Your task to perform on an android device: Search for corsair k70 on bestbuy, select the first entry, and add it to the cart. Image 0: 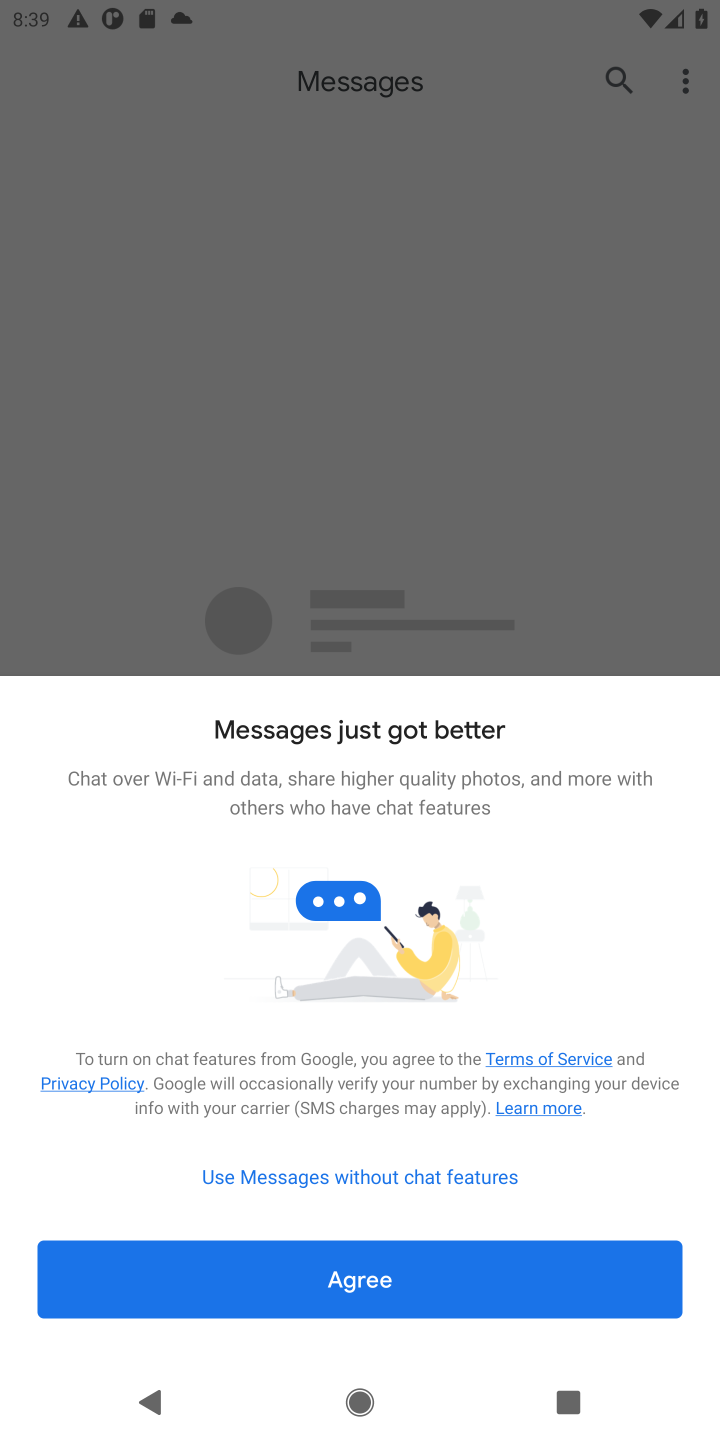
Step 0: press home button
Your task to perform on an android device: Search for corsair k70 on bestbuy, select the first entry, and add it to the cart. Image 1: 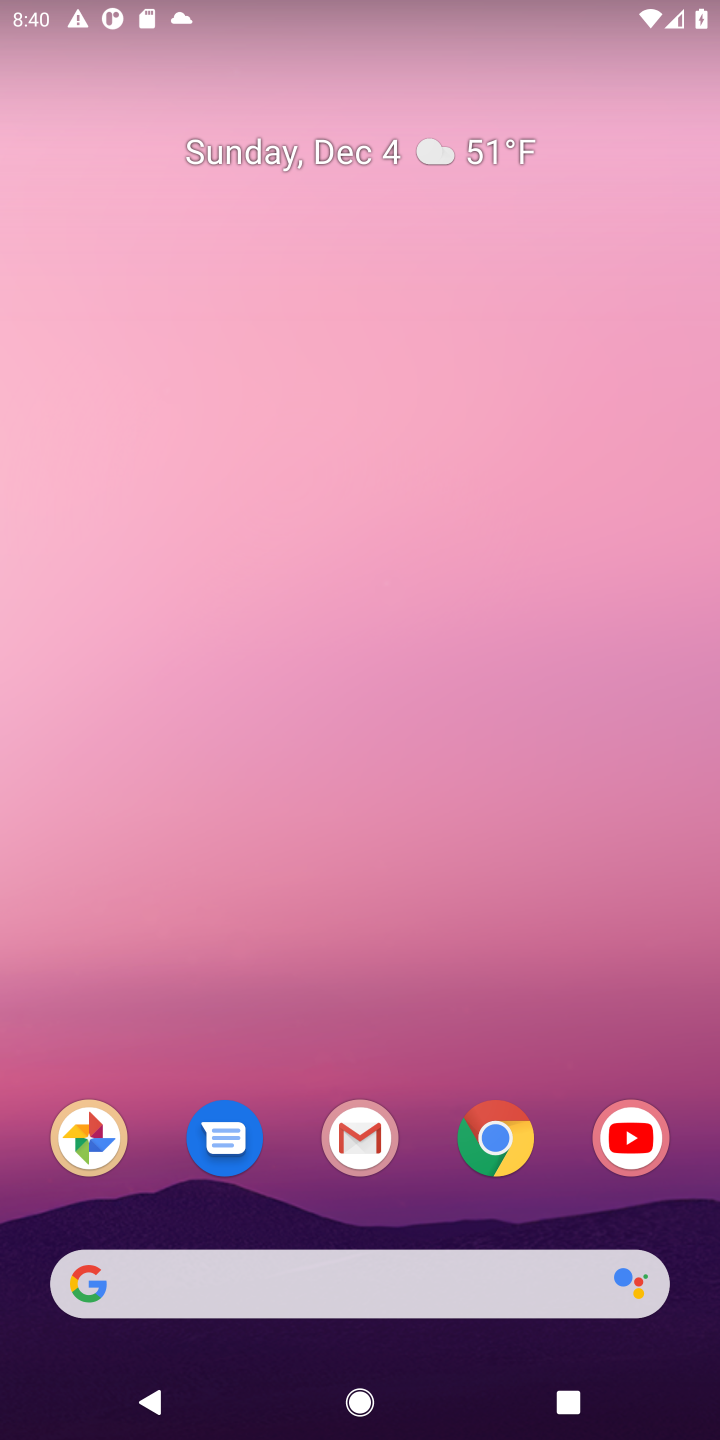
Step 1: click (496, 1138)
Your task to perform on an android device: Search for corsair k70 on bestbuy, select the first entry, and add it to the cart. Image 2: 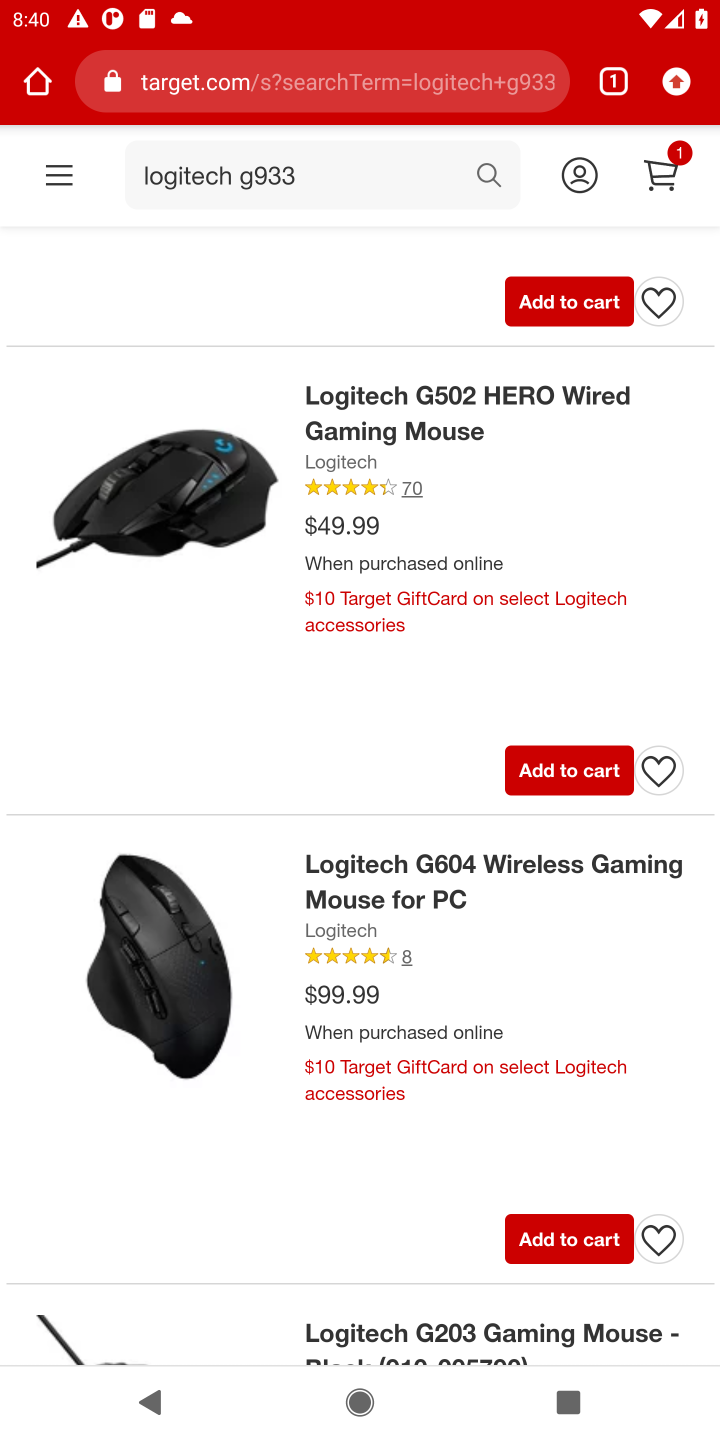
Step 2: click (357, 82)
Your task to perform on an android device: Search for corsair k70 on bestbuy, select the first entry, and add it to the cart. Image 3: 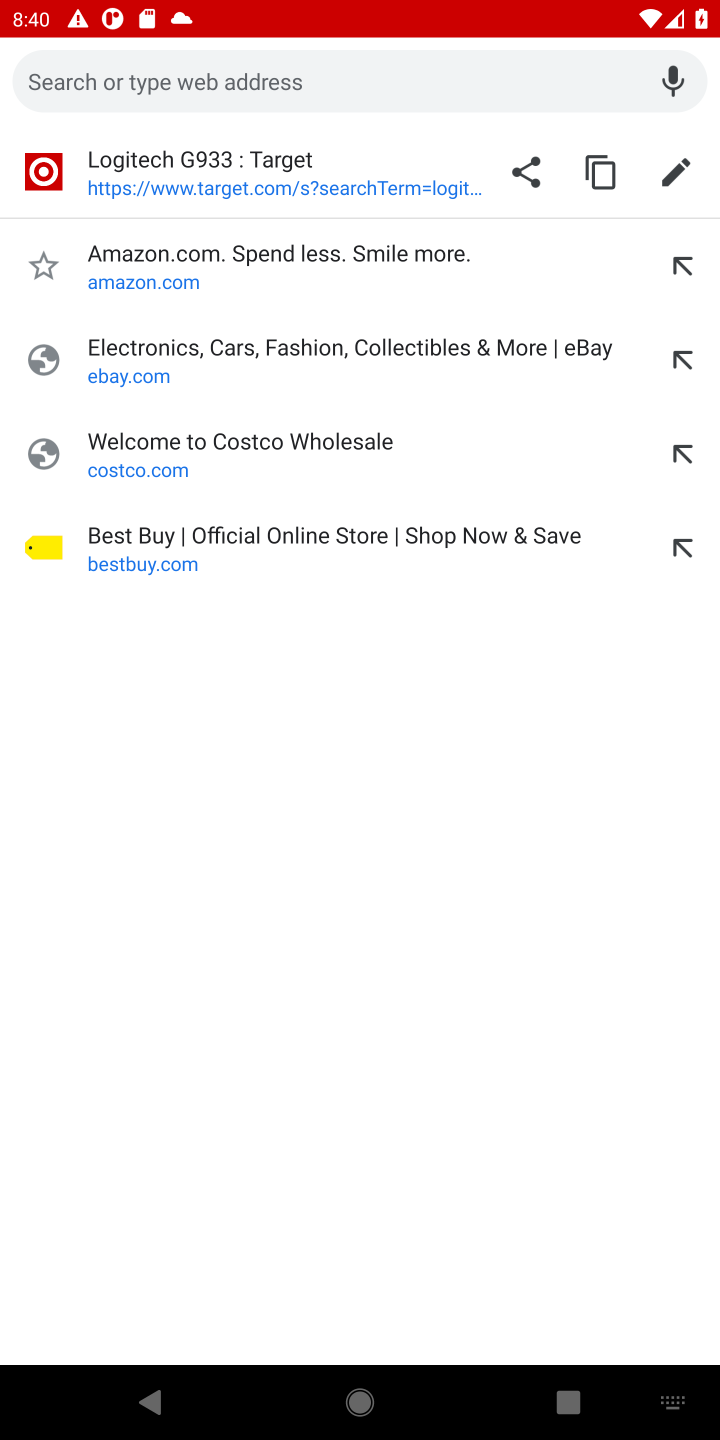
Step 3: click (228, 529)
Your task to perform on an android device: Search for corsair k70 on bestbuy, select the first entry, and add it to the cart. Image 4: 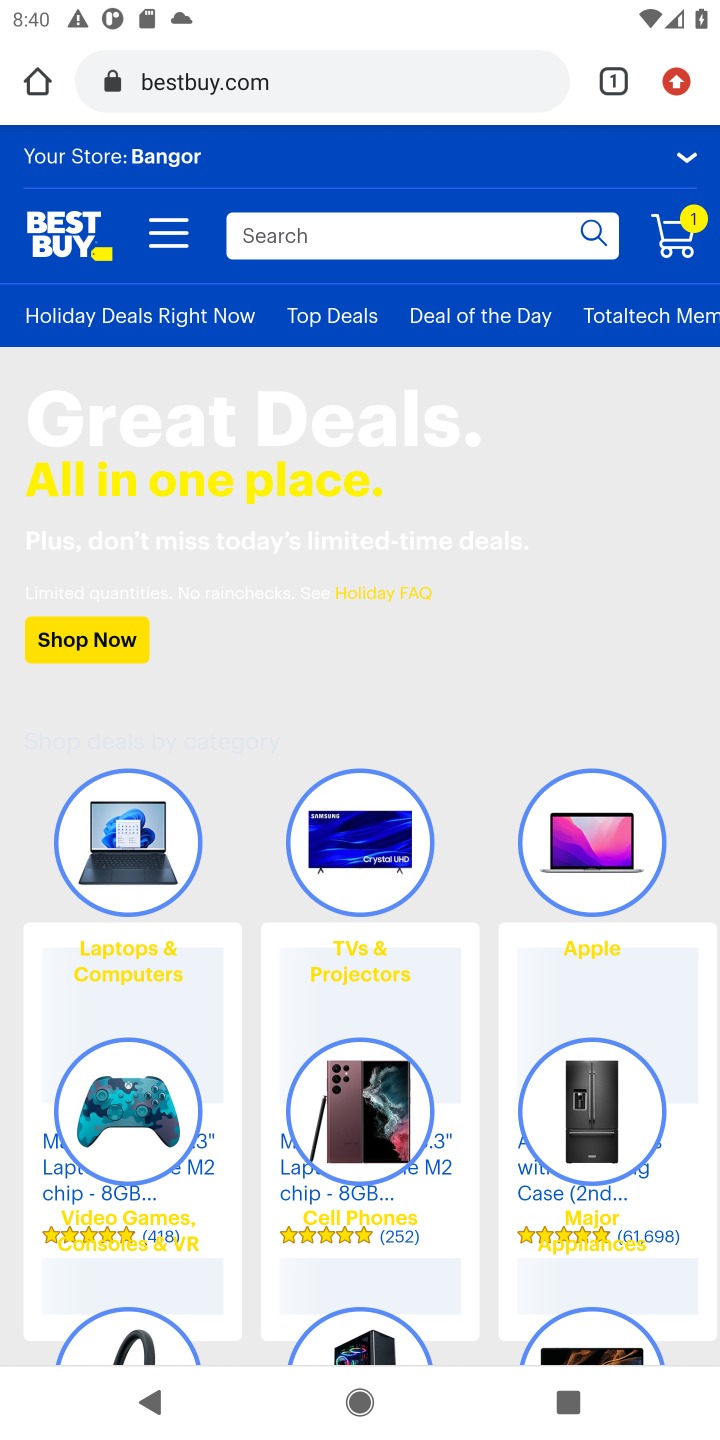
Step 4: click (454, 234)
Your task to perform on an android device: Search for corsair k70 on bestbuy, select the first entry, and add it to the cart. Image 5: 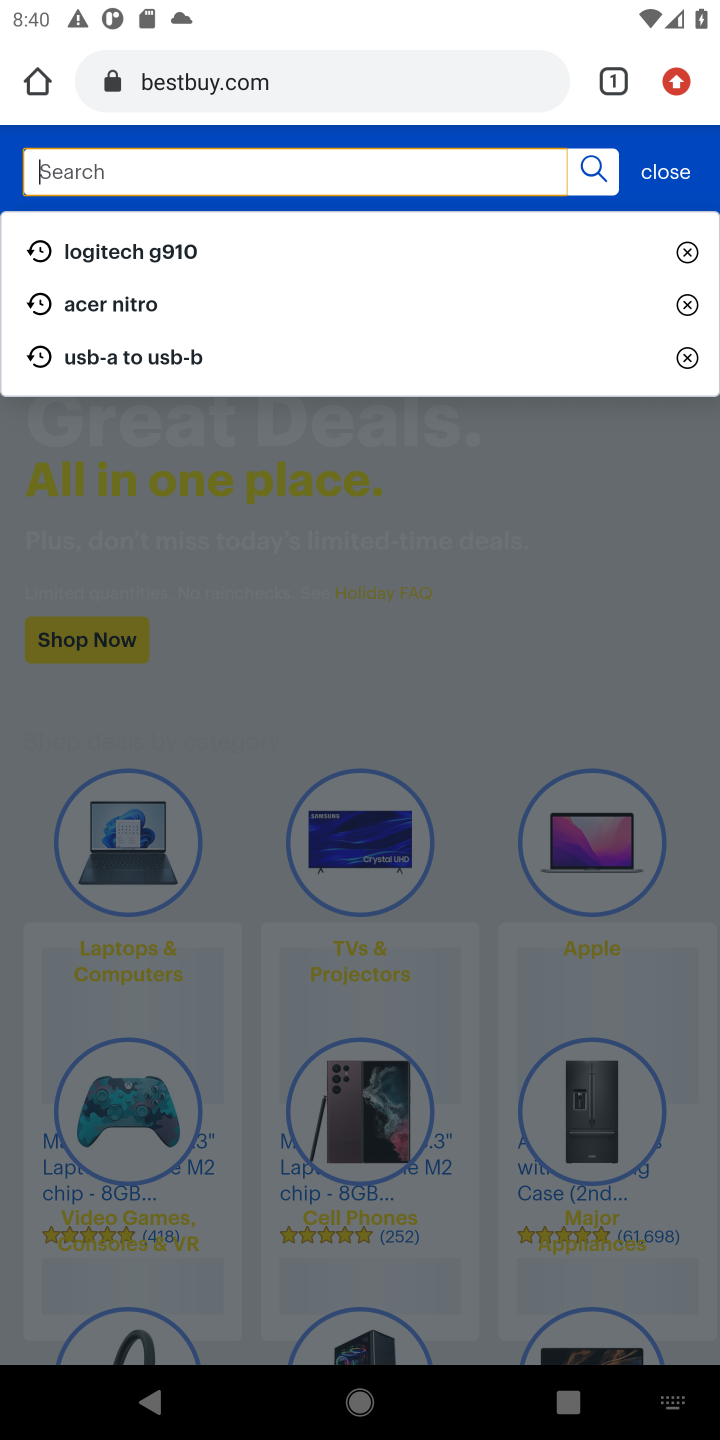
Step 5: type "corsair k70"
Your task to perform on an android device: Search for corsair k70 on bestbuy, select the first entry, and add it to the cart. Image 6: 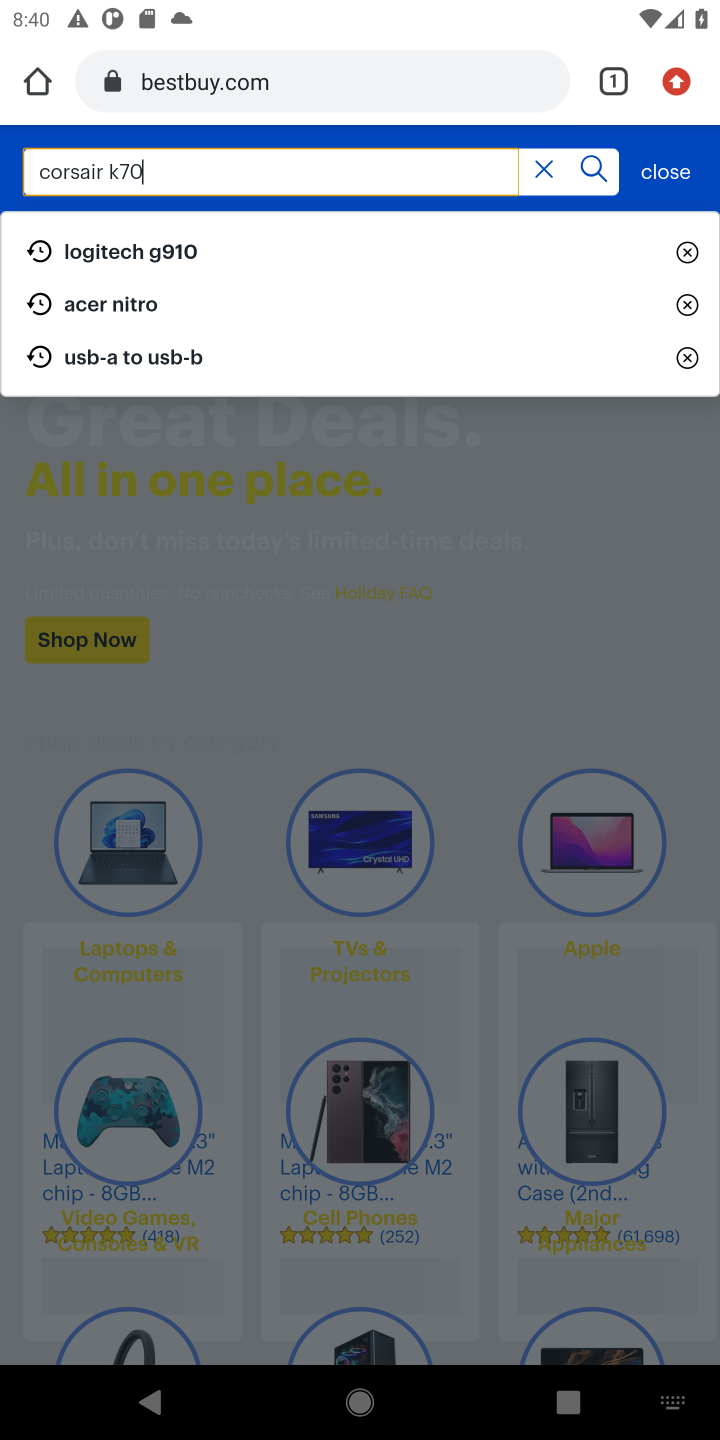
Step 6: press enter
Your task to perform on an android device: Search for corsair k70 on bestbuy, select the first entry, and add it to the cart. Image 7: 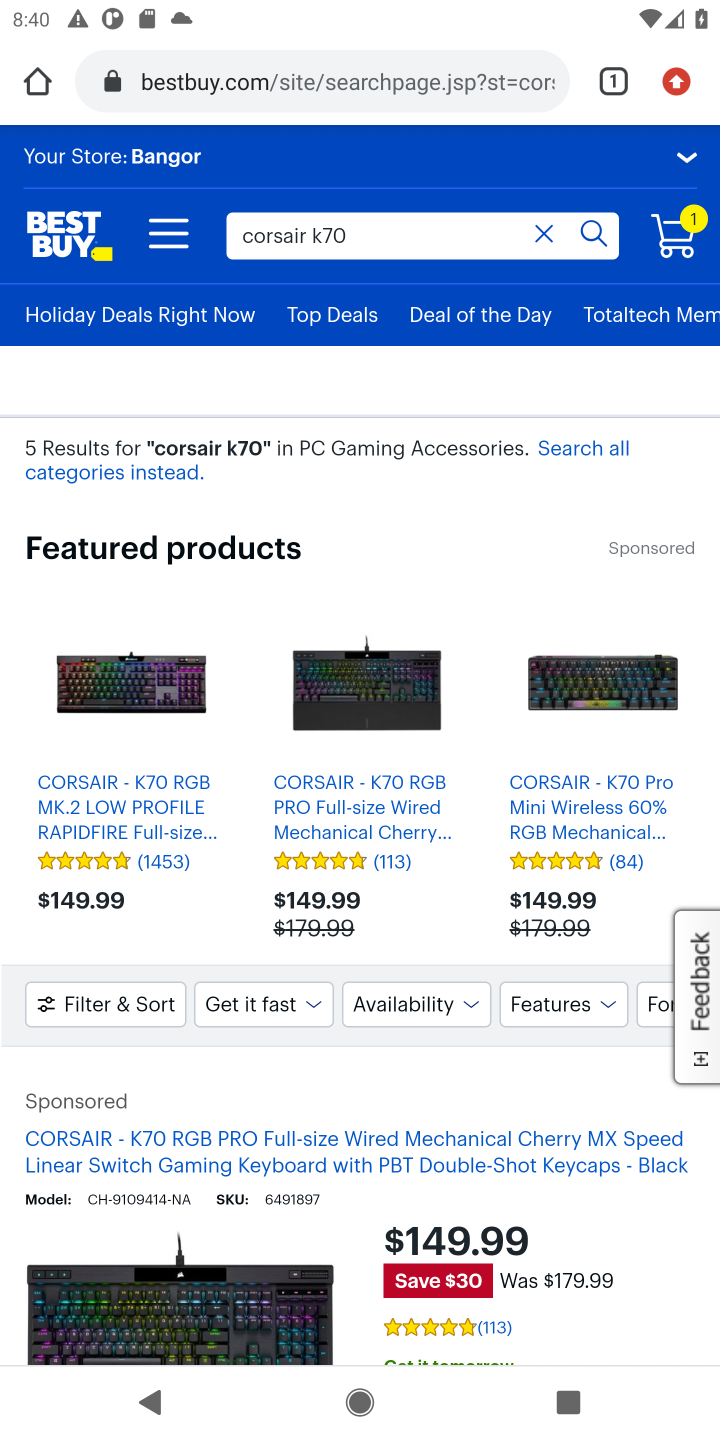
Step 7: drag from (526, 1119) to (548, 721)
Your task to perform on an android device: Search for corsair k70 on bestbuy, select the first entry, and add it to the cart. Image 8: 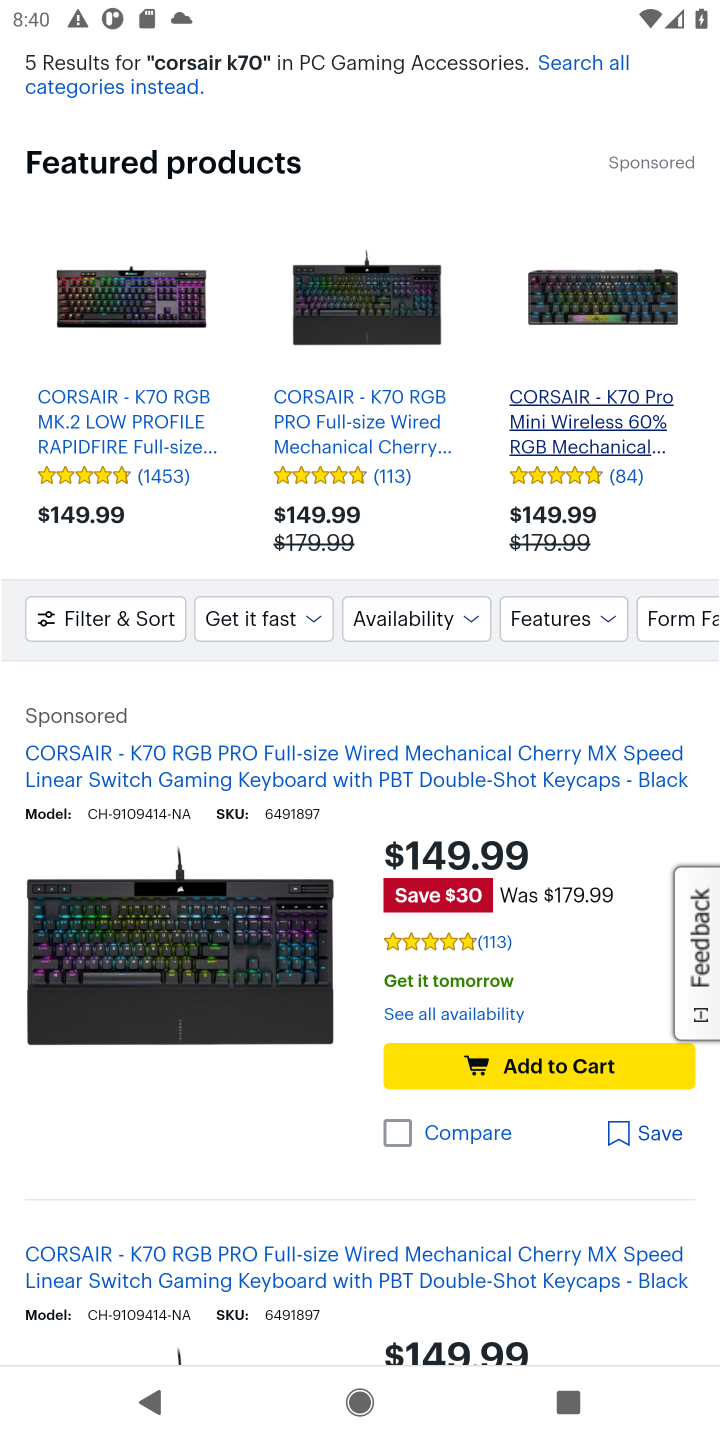
Step 8: click (217, 940)
Your task to perform on an android device: Search for corsair k70 on bestbuy, select the first entry, and add it to the cart. Image 9: 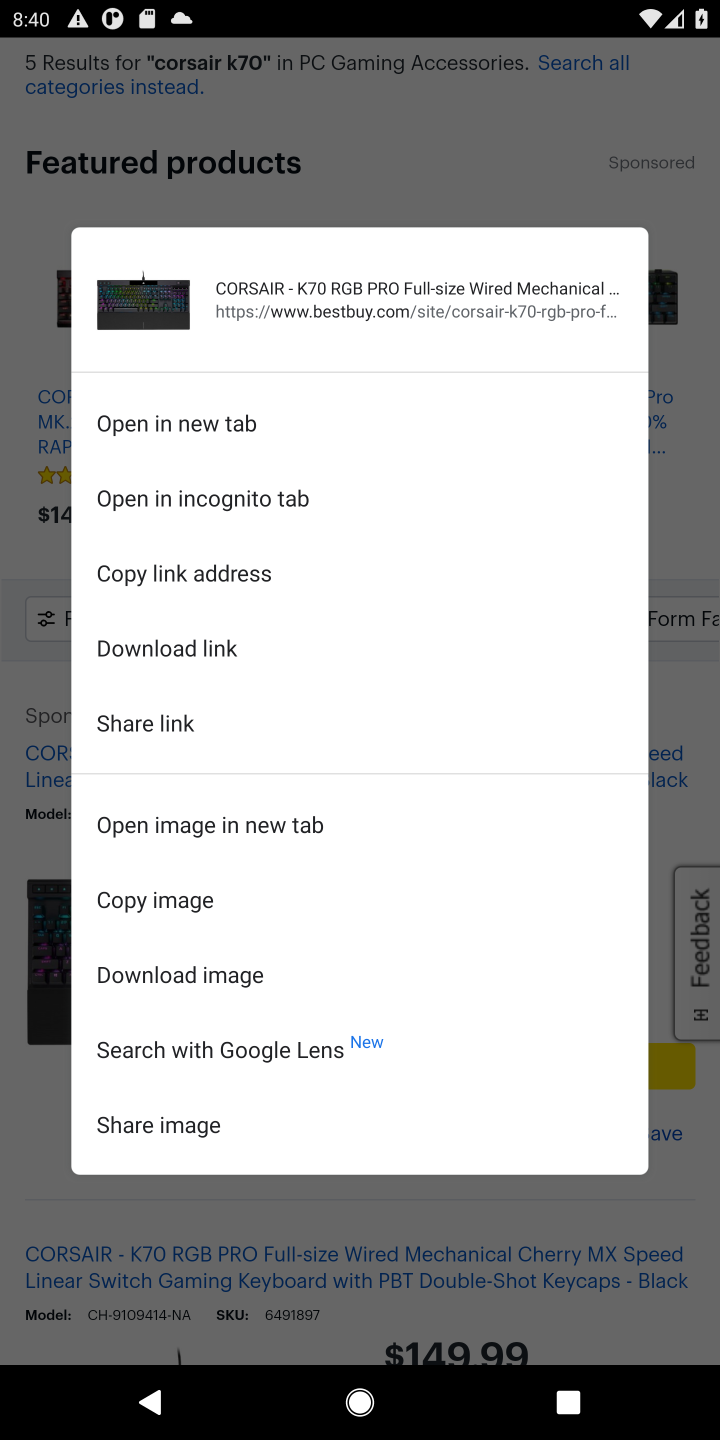
Step 9: click (66, 938)
Your task to perform on an android device: Search for corsair k70 on bestbuy, select the first entry, and add it to the cart. Image 10: 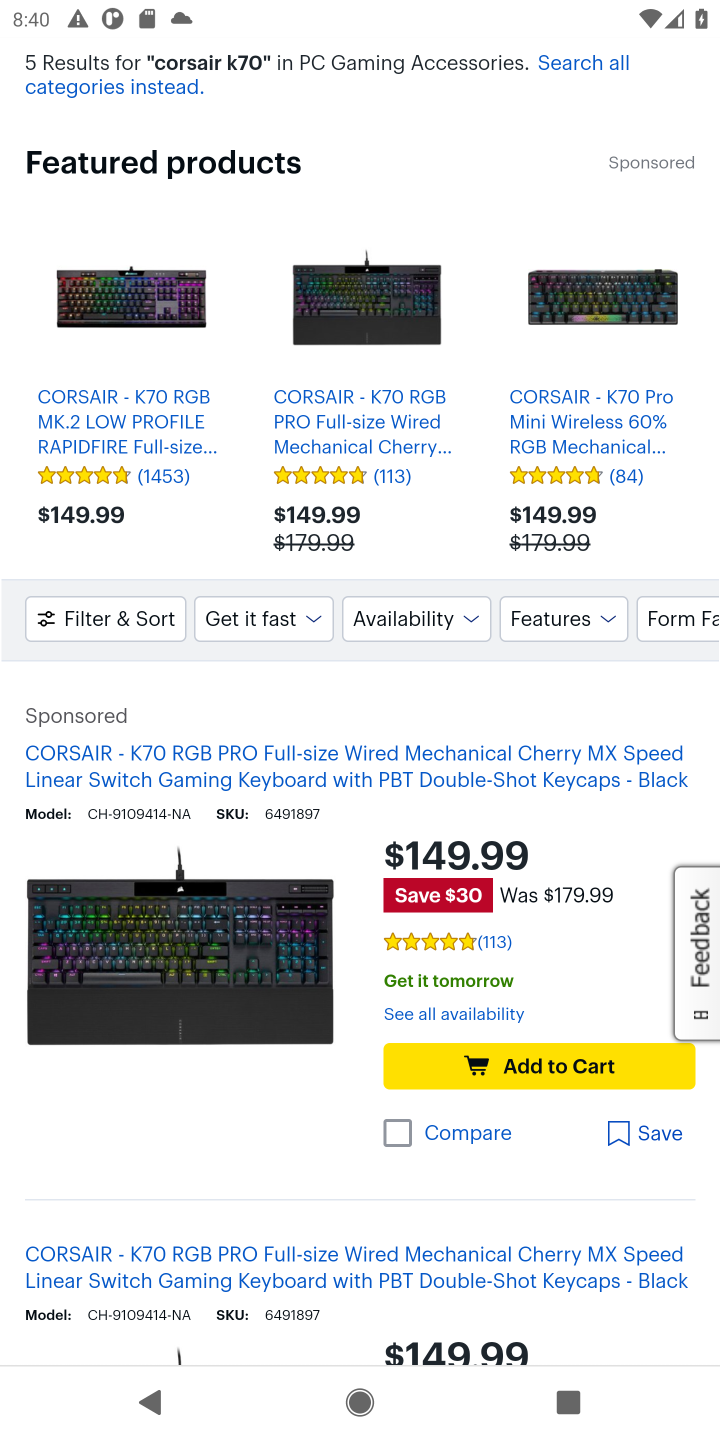
Step 10: click (165, 938)
Your task to perform on an android device: Search for corsair k70 on bestbuy, select the first entry, and add it to the cart. Image 11: 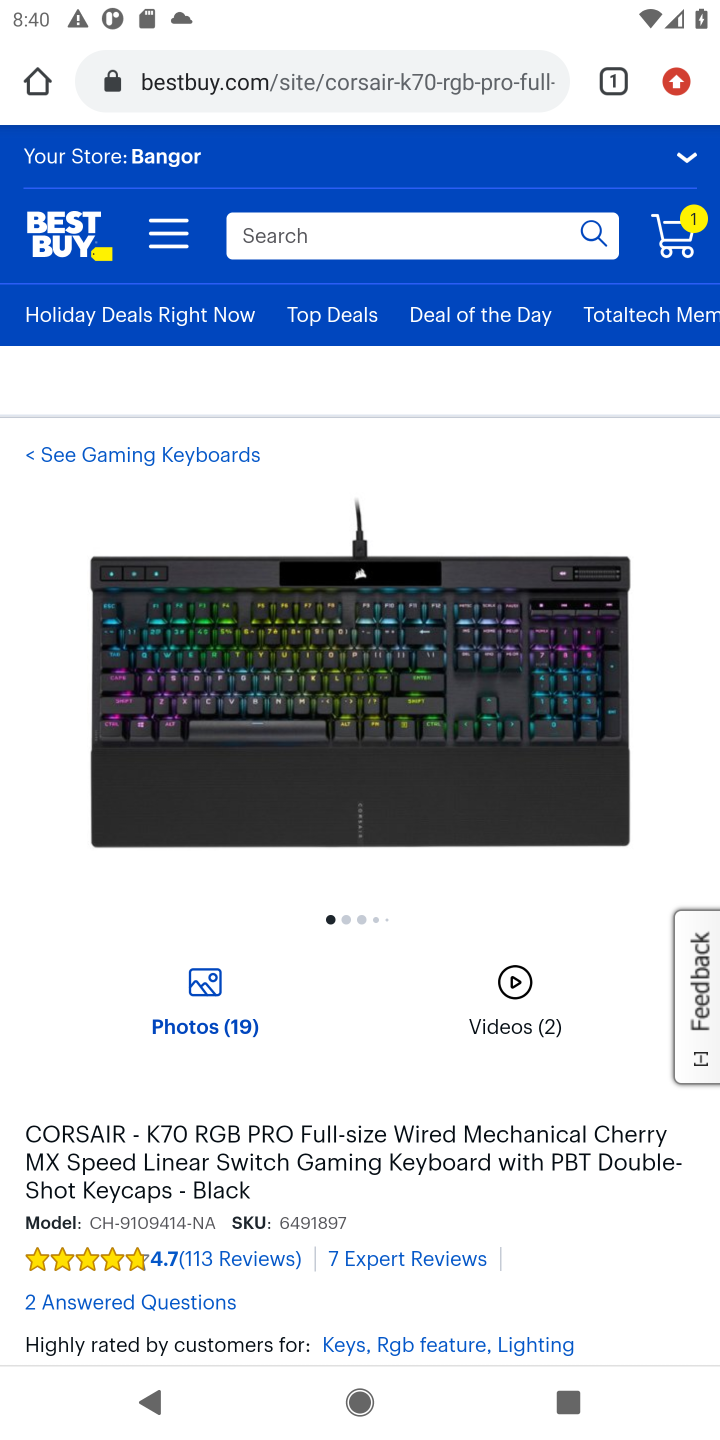
Step 11: drag from (614, 1218) to (555, 288)
Your task to perform on an android device: Search for corsair k70 on bestbuy, select the first entry, and add it to the cart. Image 12: 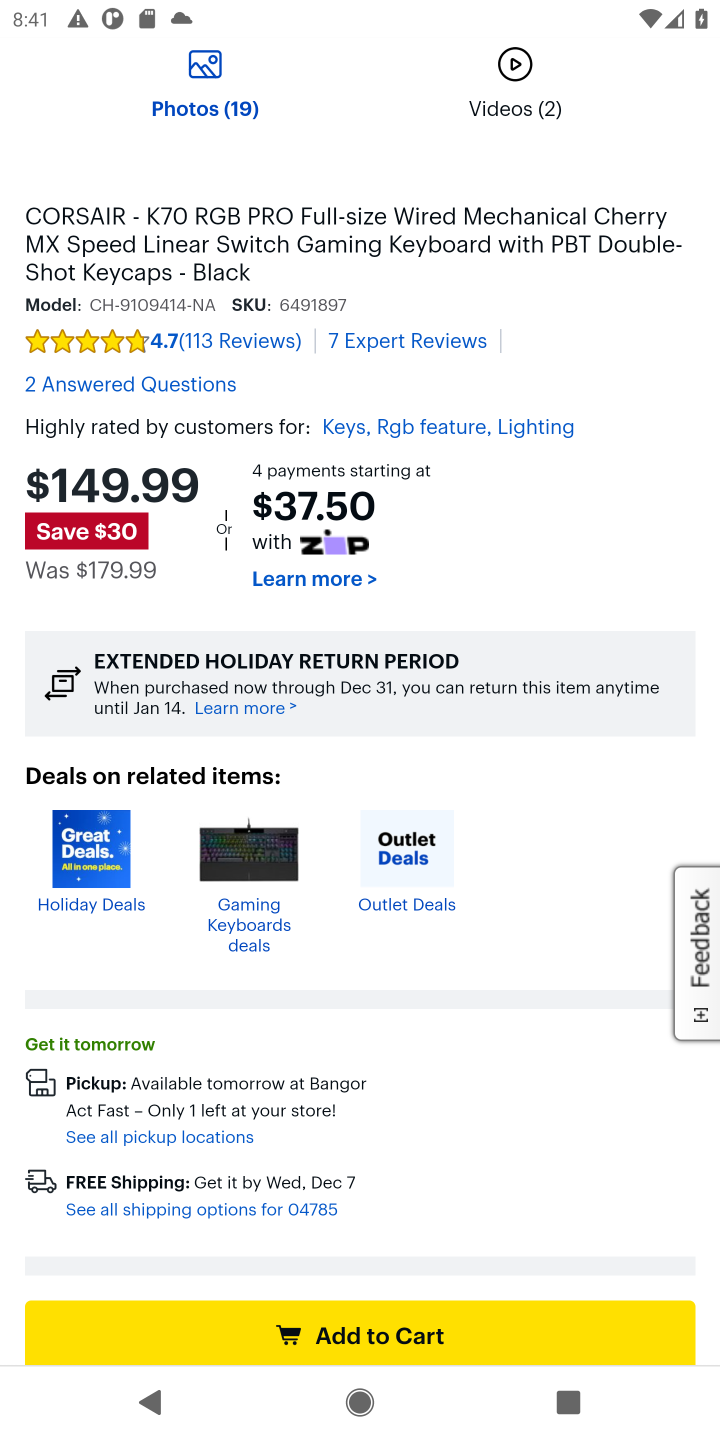
Step 12: drag from (633, 1042) to (661, 591)
Your task to perform on an android device: Search for corsair k70 on bestbuy, select the first entry, and add it to the cart. Image 13: 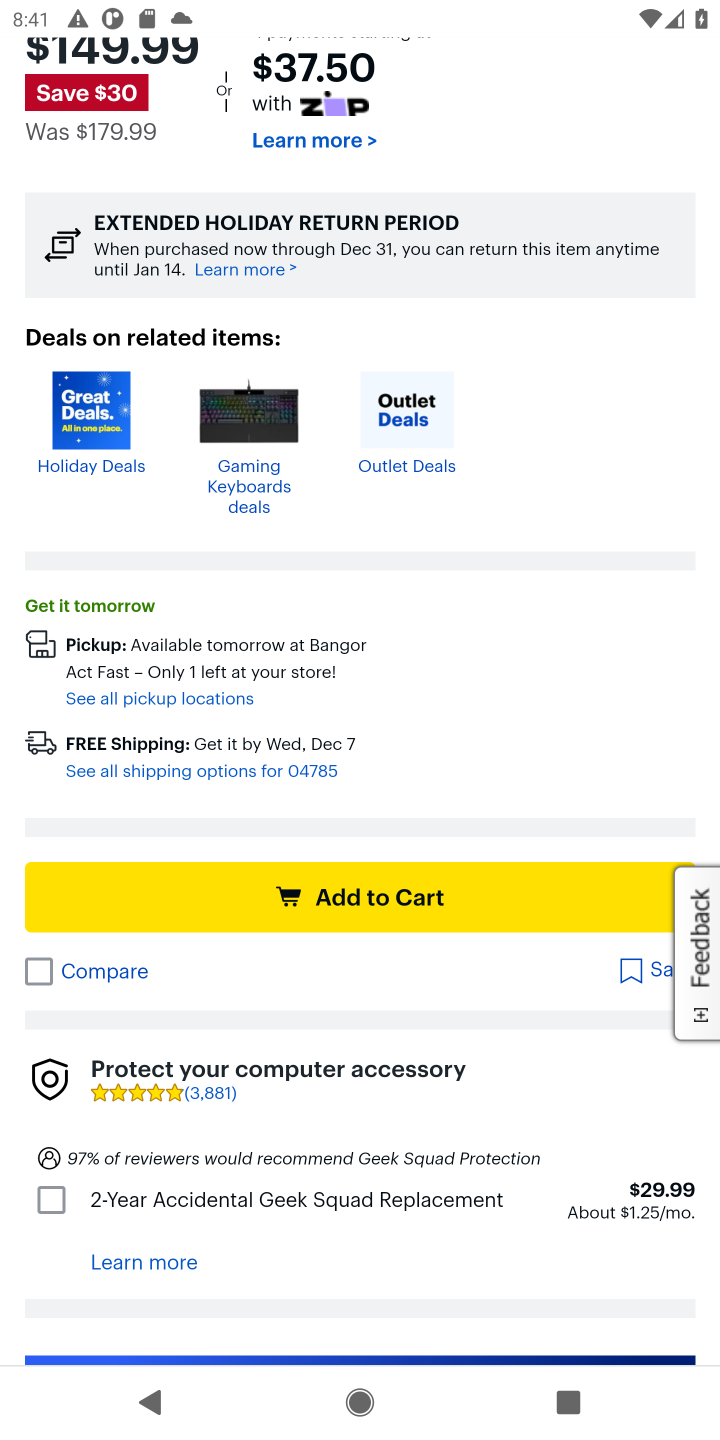
Step 13: click (388, 888)
Your task to perform on an android device: Search for corsair k70 on bestbuy, select the first entry, and add it to the cart. Image 14: 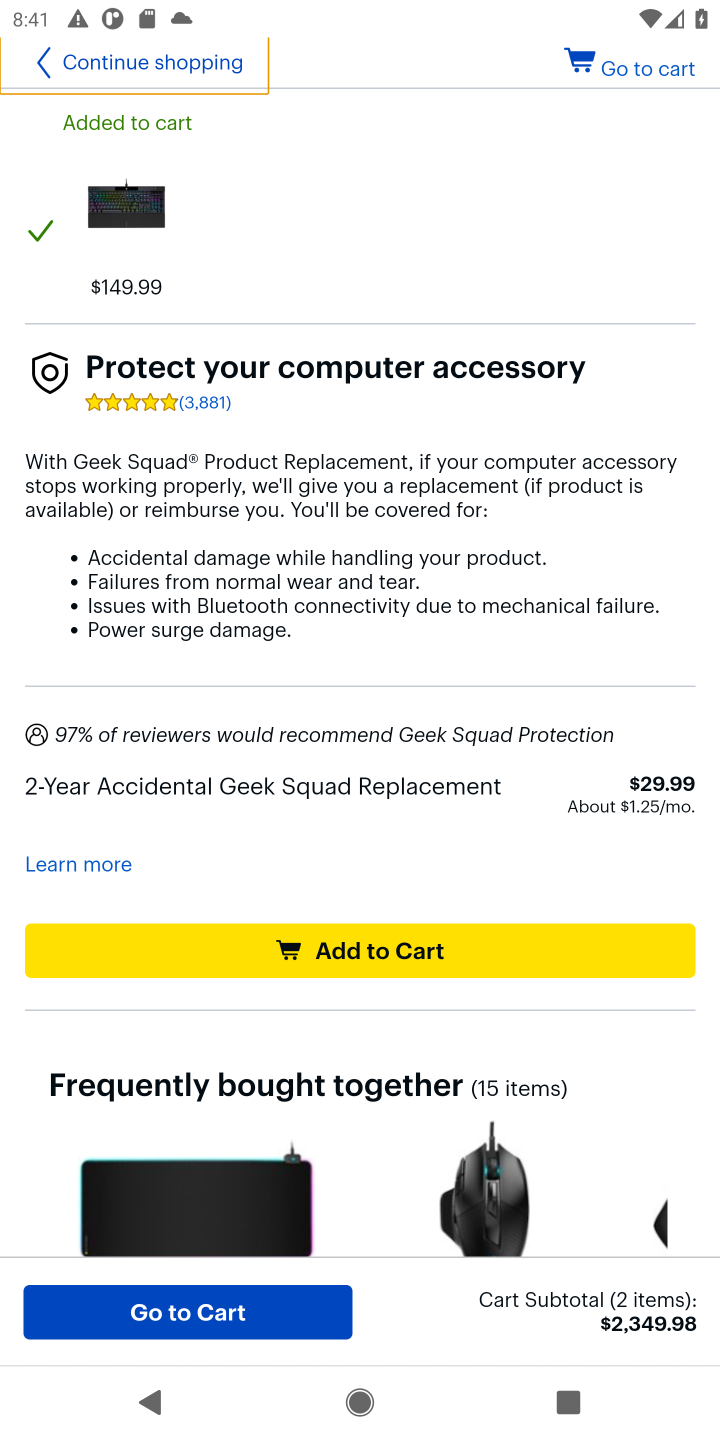
Step 14: click (208, 1314)
Your task to perform on an android device: Search for corsair k70 on bestbuy, select the first entry, and add it to the cart. Image 15: 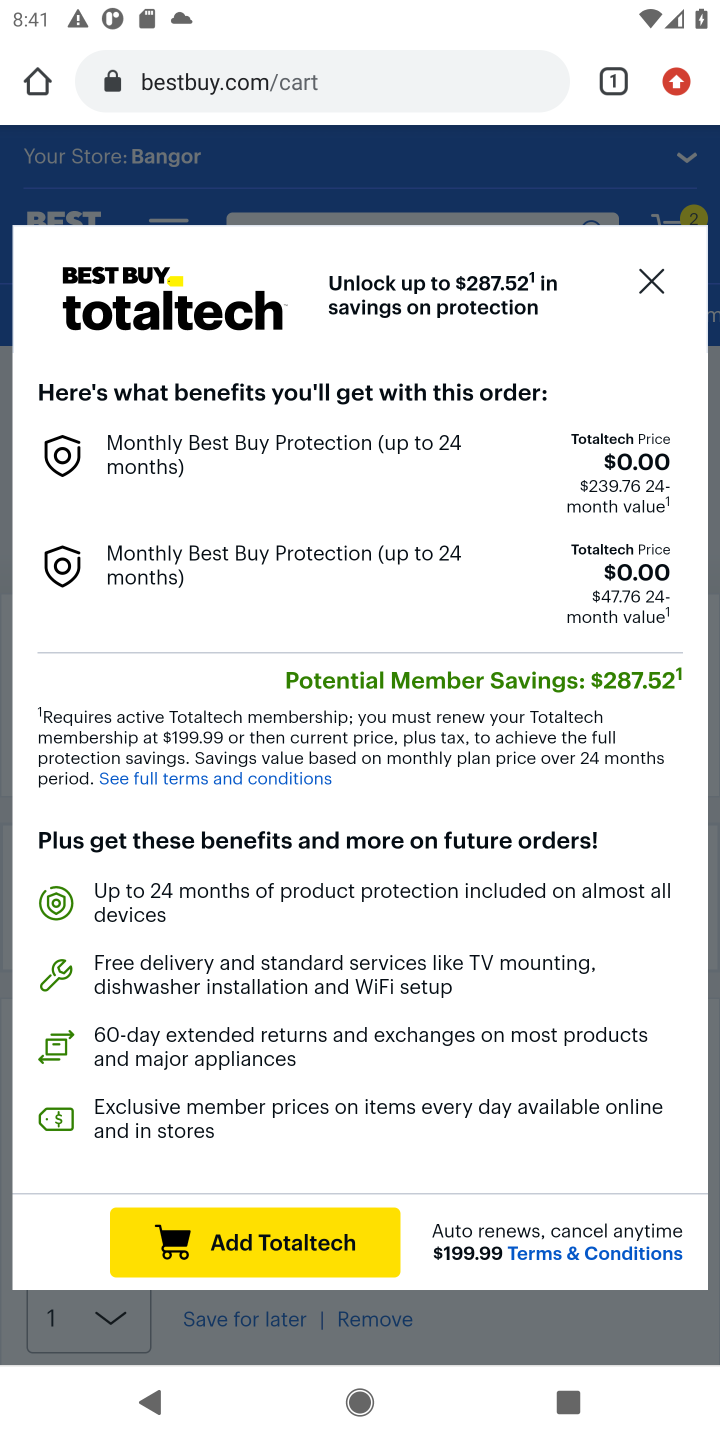
Step 15: click (646, 278)
Your task to perform on an android device: Search for corsair k70 on bestbuy, select the first entry, and add it to the cart. Image 16: 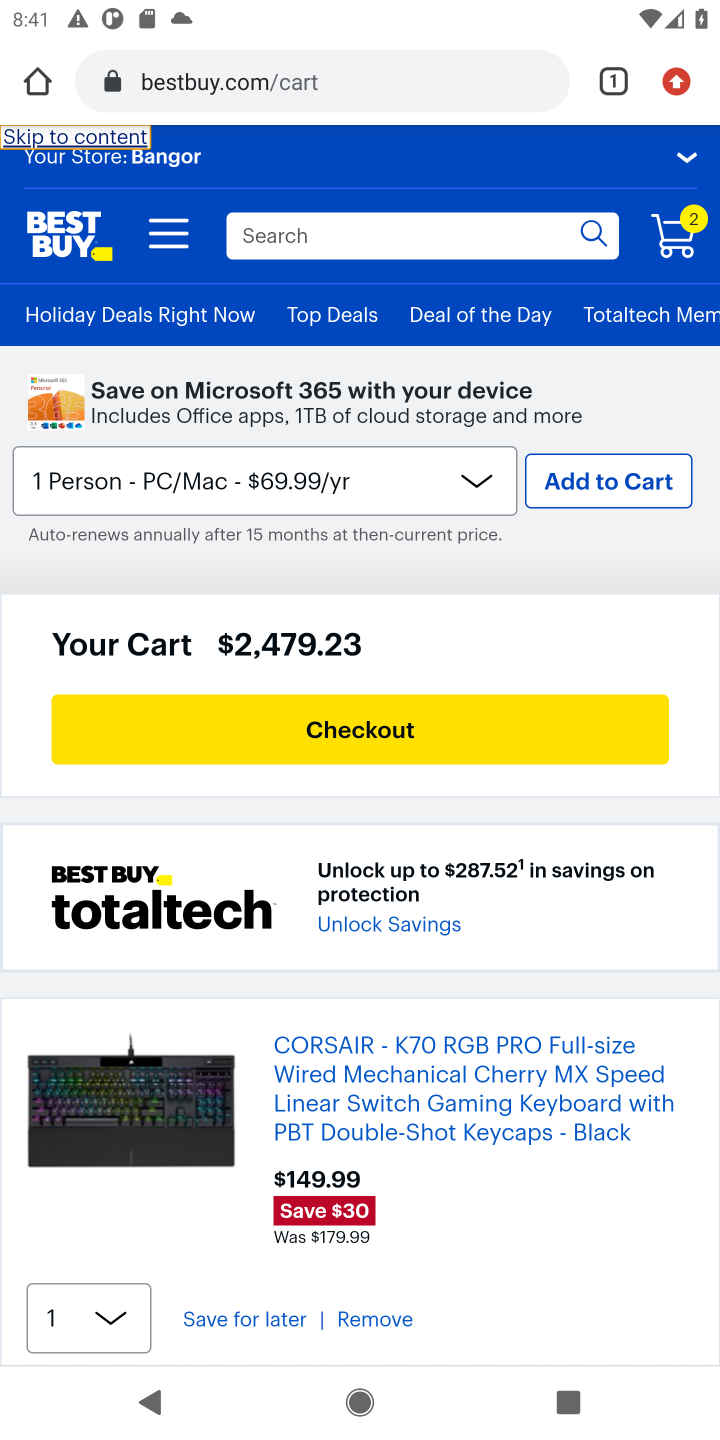
Step 16: task complete